Your task to perform on an android device: change keyboard looks Image 0: 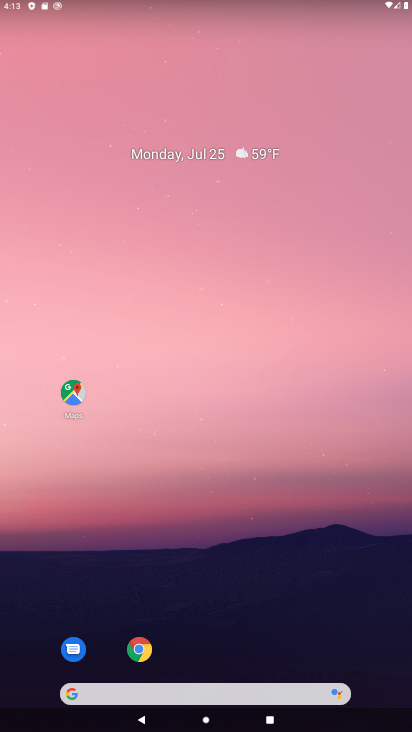
Step 0: click (158, 151)
Your task to perform on an android device: change keyboard looks Image 1: 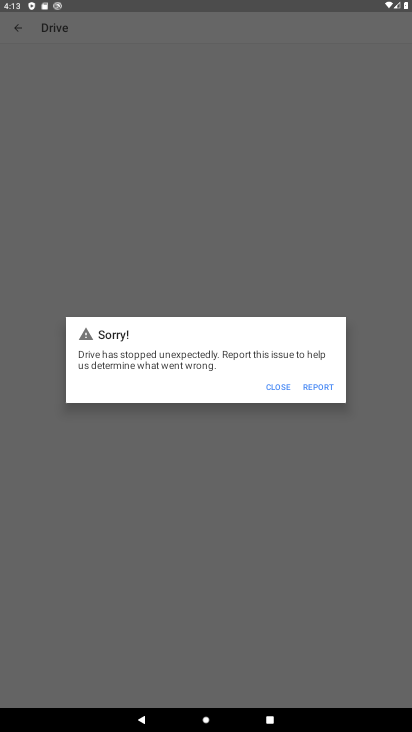
Step 1: press home button
Your task to perform on an android device: change keyboard looks Image 2: 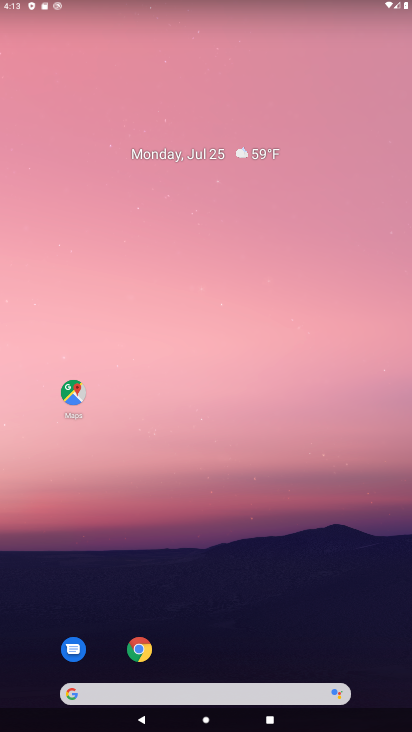
Step 2: drag from (207, 515) to (101, 93)
Your task to perform on an android device: change keyboard looks Image 3: 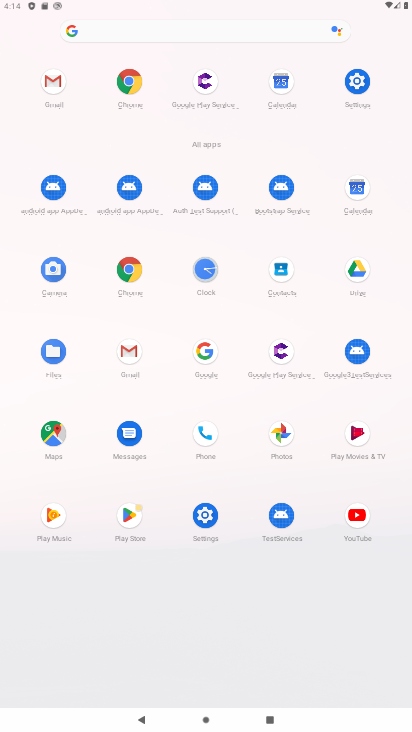
Step 3: click (366, 92)
Your task to perform on an android device: change keyboard looks Image 4: 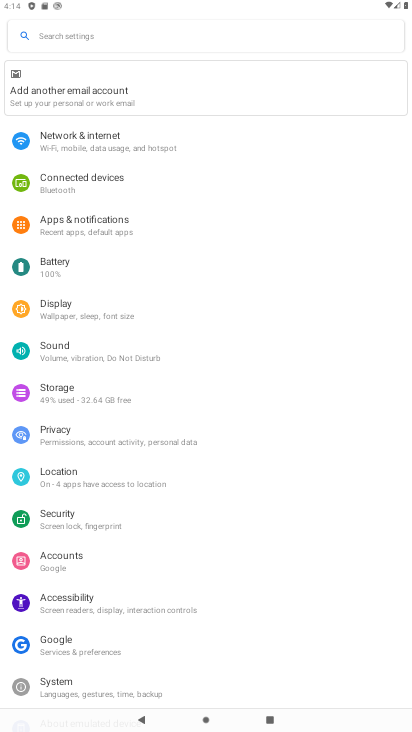
Step 4: drag from (155, 512) to (46, 152)
Your task to perform on an android device: change keyboard looks Image 5: 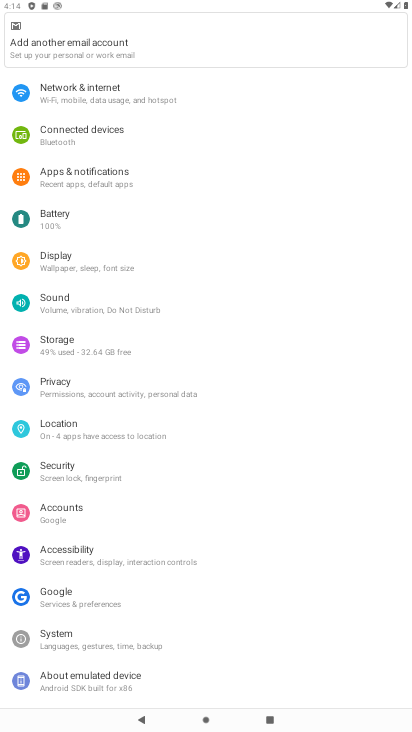
Step 5: click (105, 631)
Your task to perform on an android device: change keyboard looks Image 6: 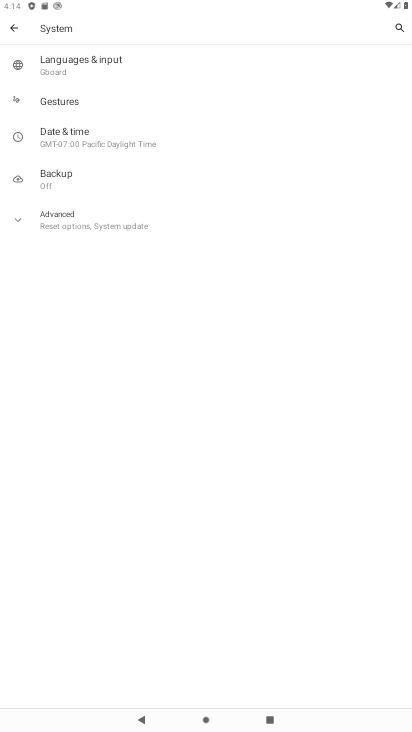
Step 6: click (82, 69)
Your task to perform on an android device: change keyboard looks Image 7: 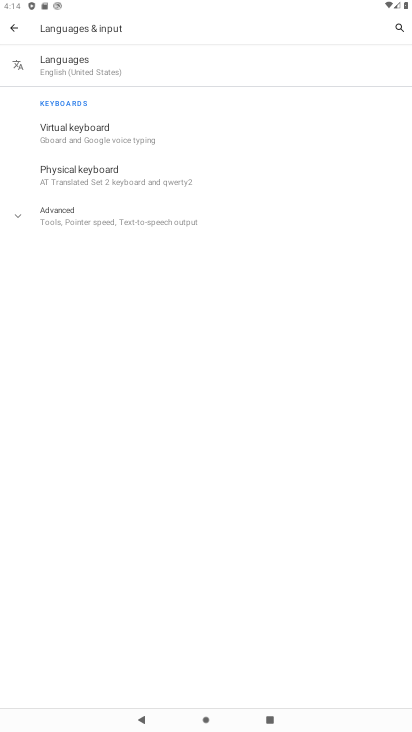
Step 7: click (42, 129)
Your task to perform on an android device: change keyboard looks Image 8: 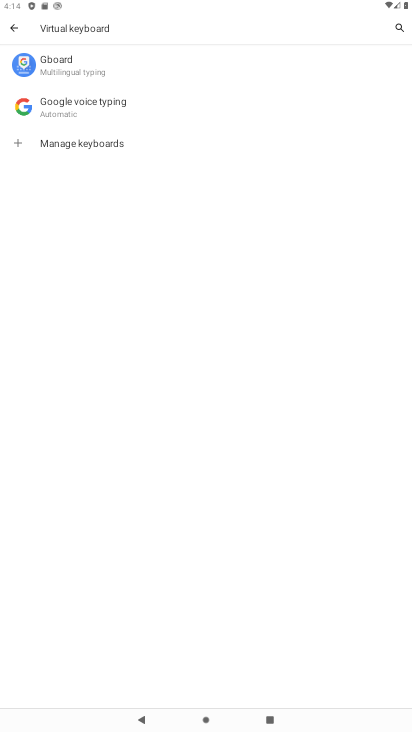
Step 8: click (85, 62)
Your task to perform on an android device: change keyboard looks Image 9: 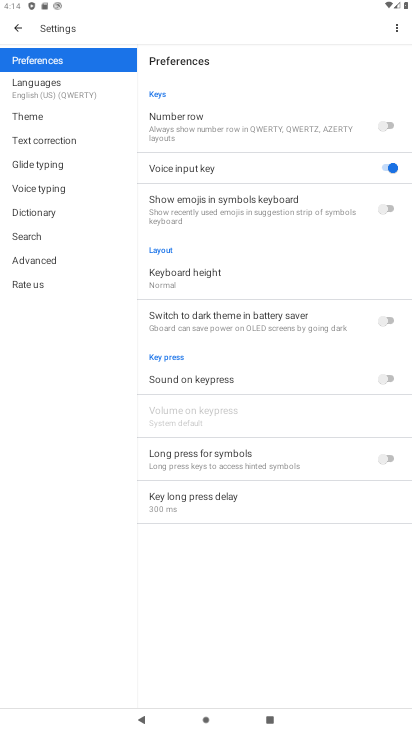
Step 9: click (61, 124)
Your task to perform on an android device: change keyboard looks Image 10: 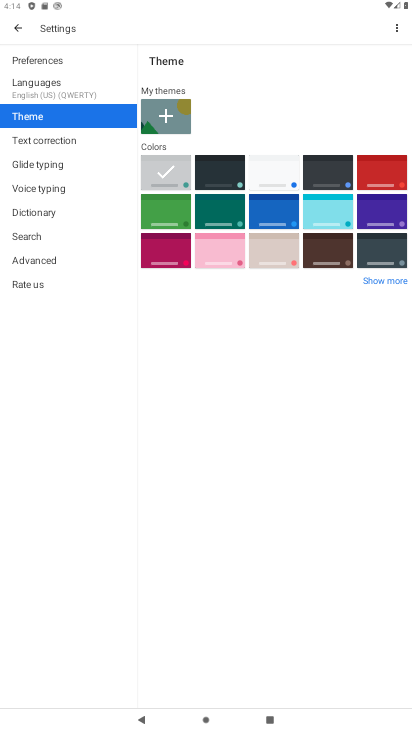
Step 10: click (203, 181)
Your task to perform on an android device: change keyboard looks Image 11: 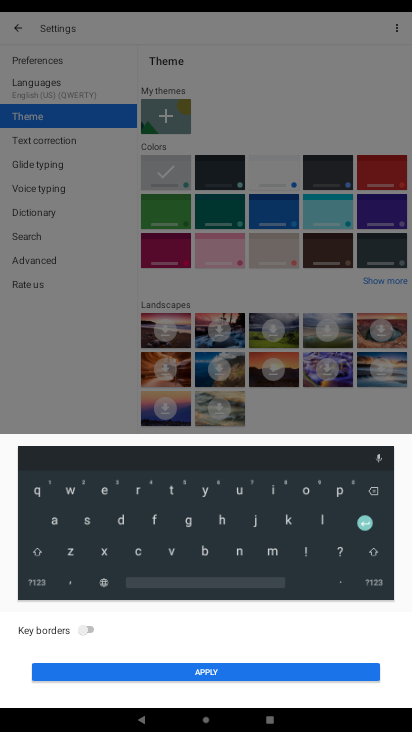
Step 11: click (204, 676)
Your task to perform on an android device: change keyboard looks Image 12: 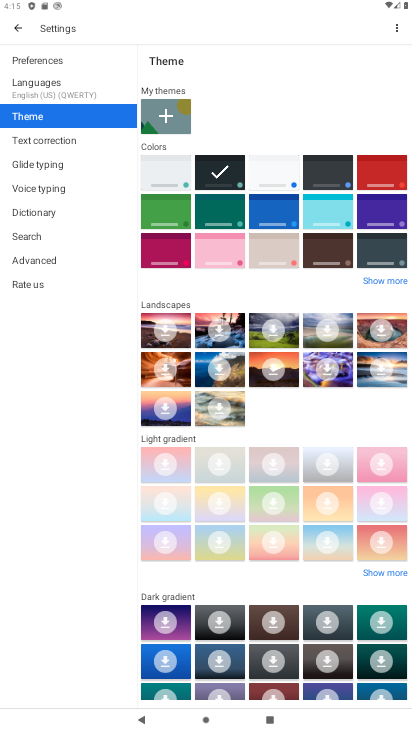
Step 12: task complete